Your task to perform on an android device: all mails in gmail Image 0: 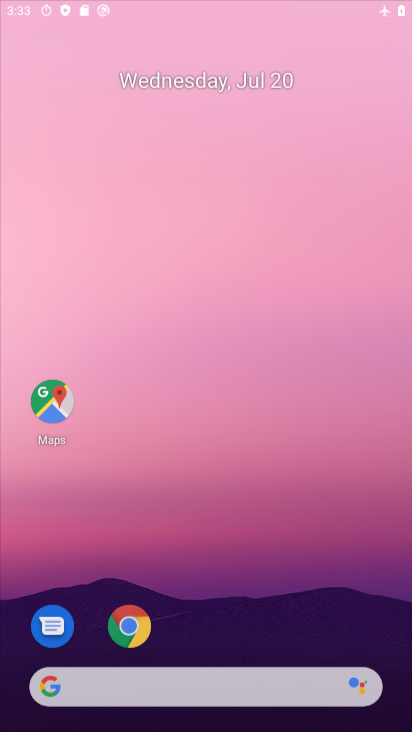
Step 0: press home button
Your task to perform on an android device: all mails in gmail Image 1: 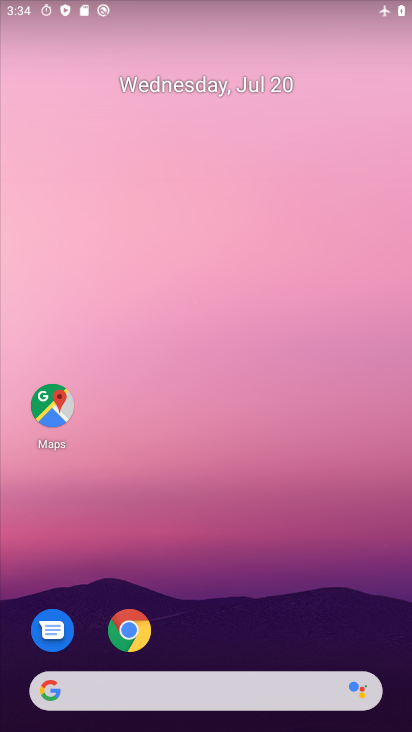
Step 1: drag from (209, 648) to (340, 12)
Your task to perform on an android device: all mails in gmail Image 2: 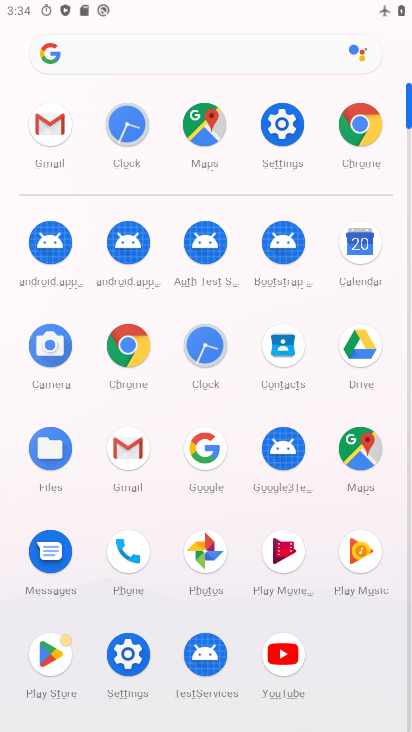
Step 2: click (120, 448)
Your task to perform on an android device: all mails in gmail Image 3: 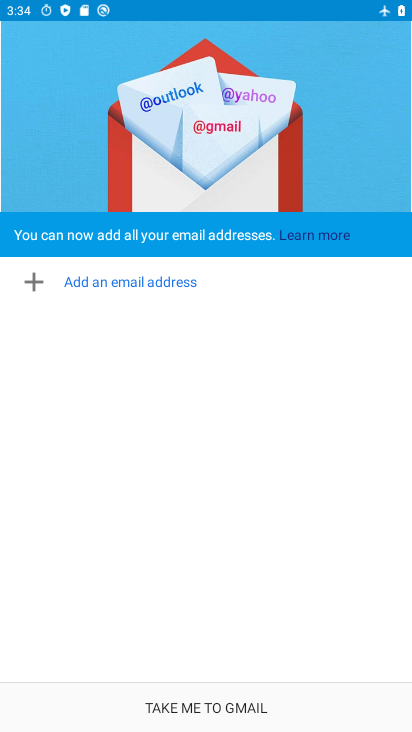
Step 3: click (136, 716)
Your task to perform on an android device: all mails in gmail Image 4: 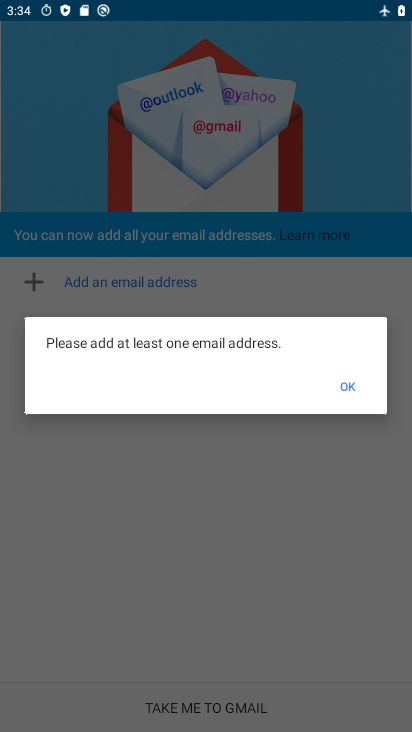
Step 4: task complete